Your task to perform on an android device: Show me popular games on the Play Store Image 0: 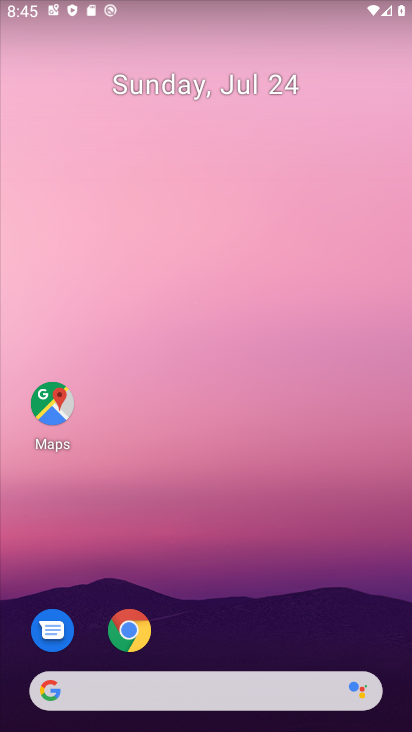
Step 0: drag from (271, 633) to (275, 70)
Your task to perform on an android device: Show me popular games on the Play Store Image 1: 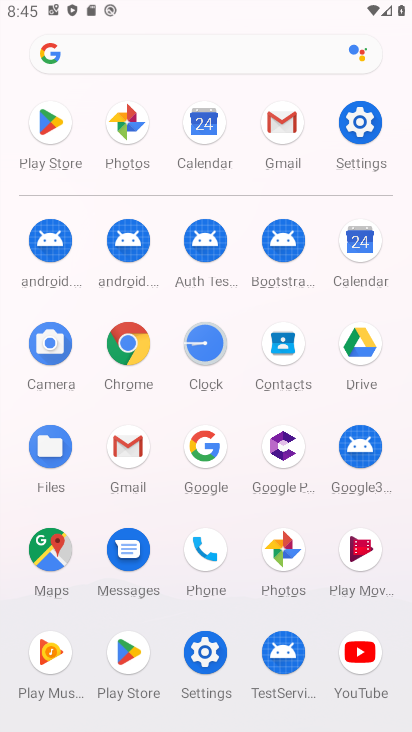
Step 1: click (39, 145)
Your task to perform on an android device: Show me popular games on the Play Store Image 2: 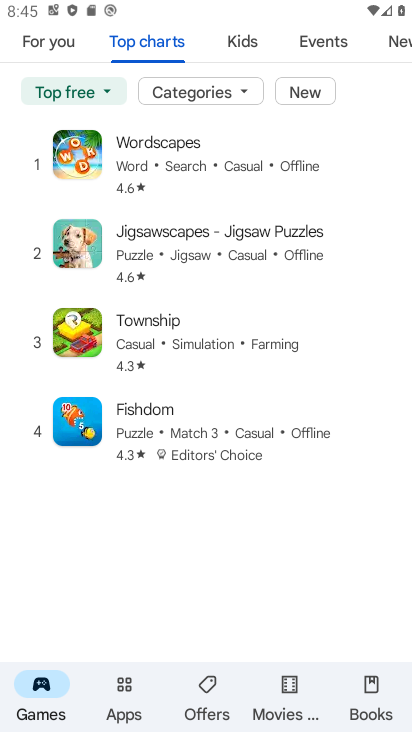
Step 2: task complete